Your task to perform on an android device: check out phone information Image 0: 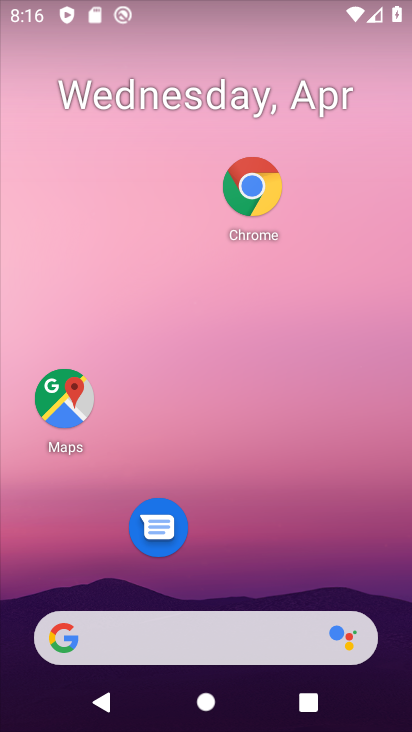
Step 0: drag from (260, 557) to (262, 140)
Your task to perform on an android device: check out phone information Image 1: 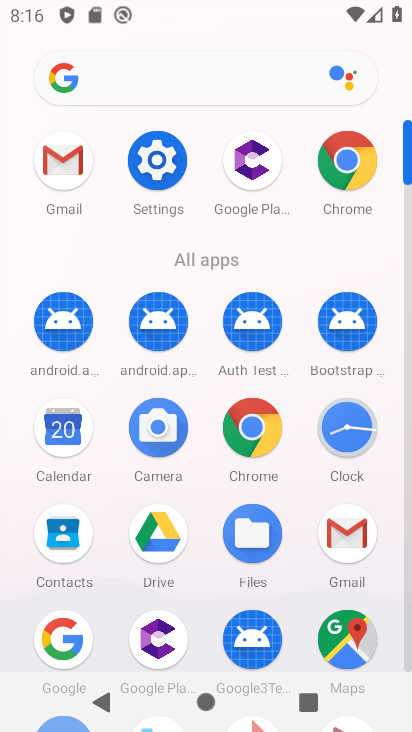
Step 1: click (156, 151)
Your task to perform on an android device: check out phone information Image 2: 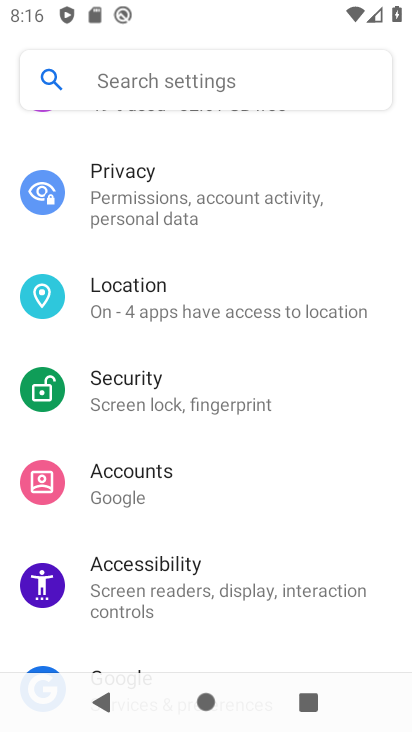
Step 2: drag from (222, 646) to (252, 215)
Your task to perform on an android device: check out phone information Image 3: 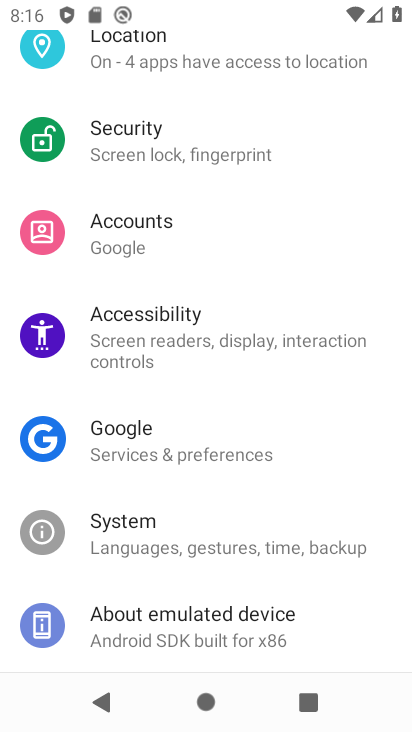
Step 3: click (205, 628)
Your task to perform on an android device: check out phone information Image 4: 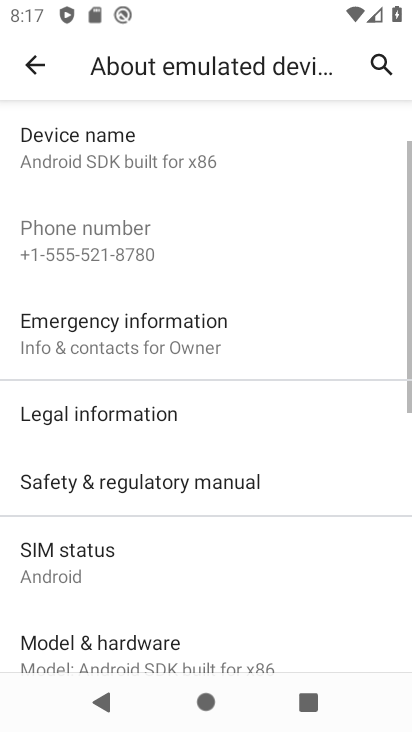
Step 4: task complete